Your task to perform on an android device: Do I have any events tomorrow? Image 0: 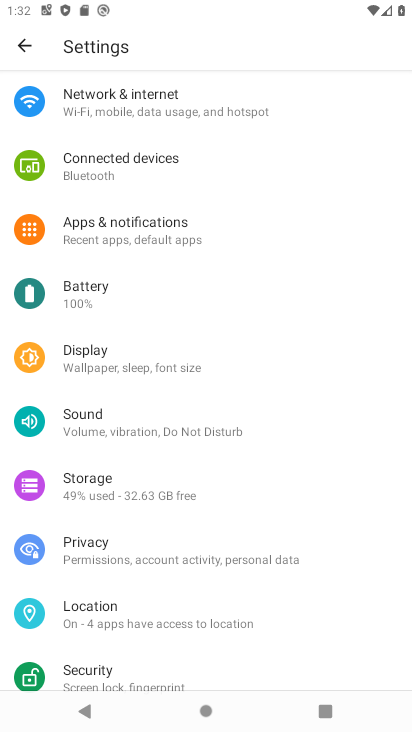
Step 0: press home button
Your task to perform on an android device: Do I have any events tomorrow? Image 1: 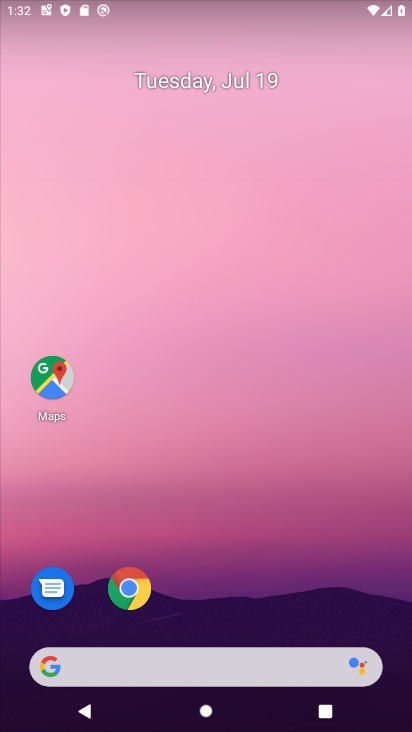
Step 1: click (139, 658)
Your task to perform on an android device: Do I have any events tomorrow? Image 2: 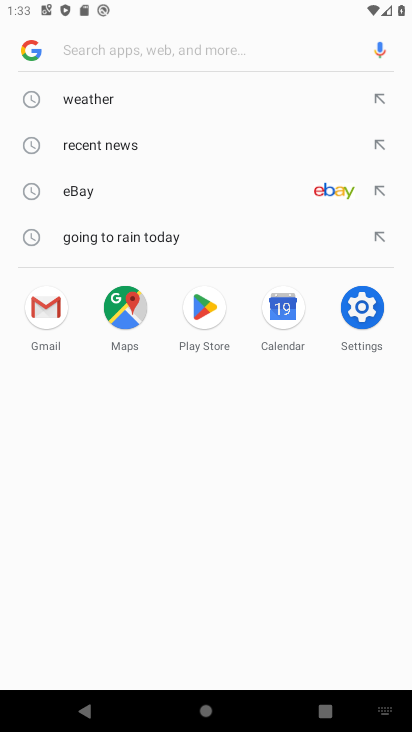
Step 2: type "Do I have any events tomorrow?"
Your task to perform on an android device: Do I have any events tomorrow? Image 3: 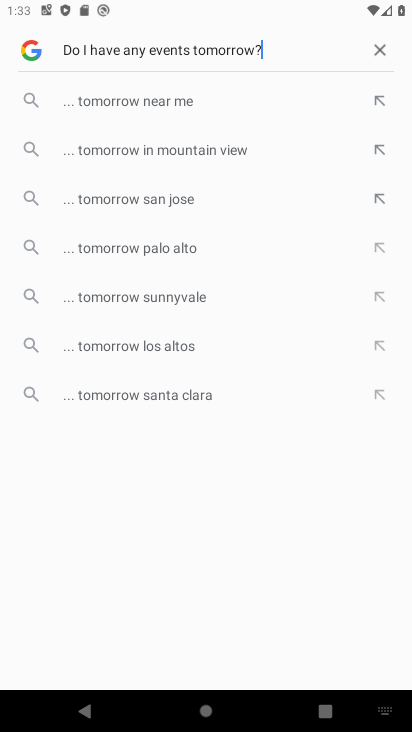
Step 3: type ""
Your task to perform on an android device: Do I have any events tomorrow? Image 4: 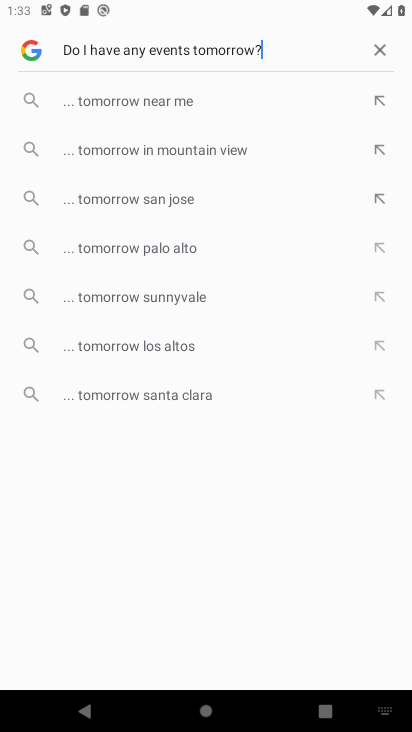
Step 4: type ""
Your task to perform on an android device: Do I have any events tomorrow? Image 5: 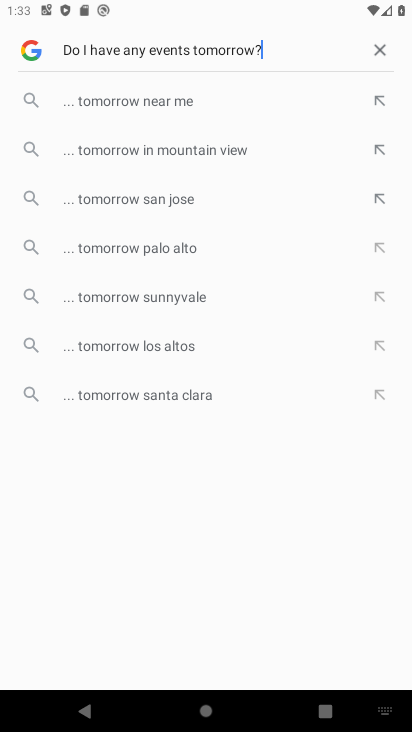
Step 5: task complete